Your task to perform on an android device: Search for logitech g pro on amazon, select the first entry, and add it to the cart. Image 0: 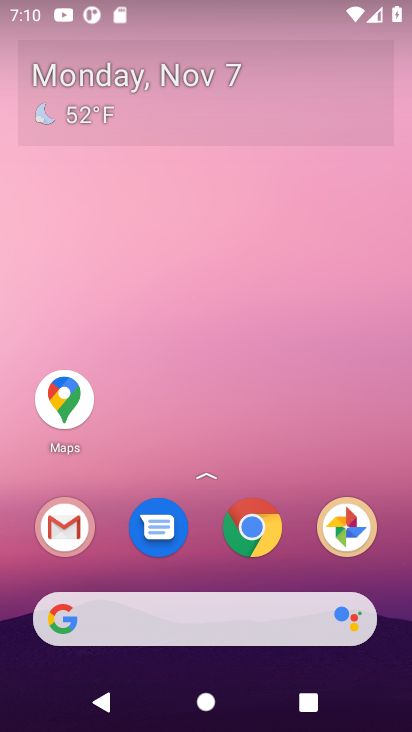
Step 0: click (259, 526)
Your task to perform on an android device: Search for logitech g pro on amazon, select the first entry, and add it to the cart. Image 1: 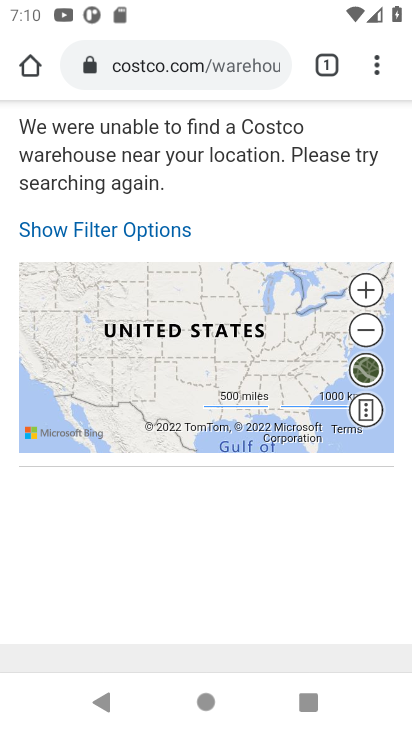
Step 1: click (183, 71)
Your task to perform on an android device: Search for logitech g pro on amazon, select the first entry, and add it to the cart. Image 2: 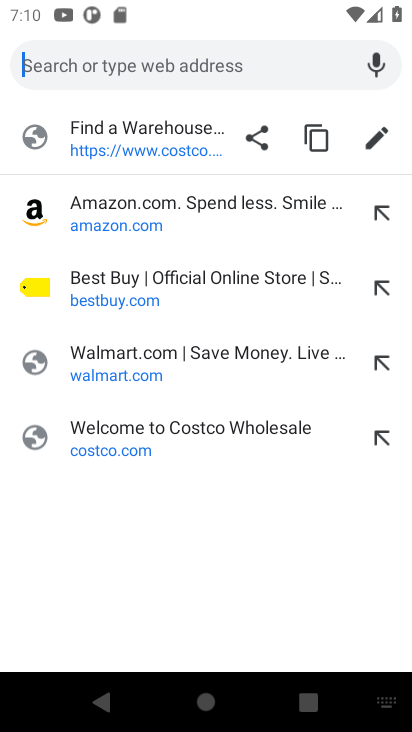
Step 2: type "amazon"
Your task to perform on an android device: Search for logitech g pro on amazon, select the first entry, and add it to the cart. Image 3: 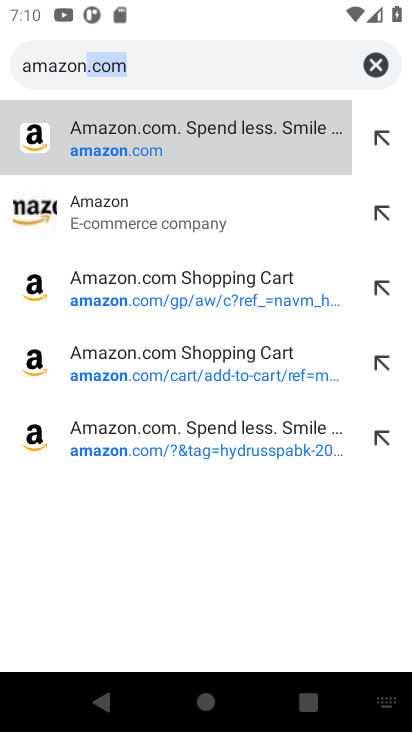
Step 3: type "["
Your task to perform on an android device: Search for logitech g pro on amazon, select the first entry, and add it to the cart. Image 4: 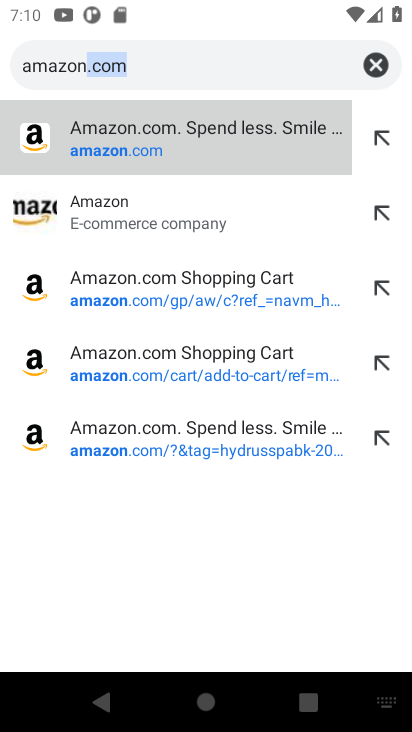
Step 4: click (231, 149)
Your task to perform on an android device: Search for logitech g pro on amazon, select the first entry, and add it to the cart. Image 5: 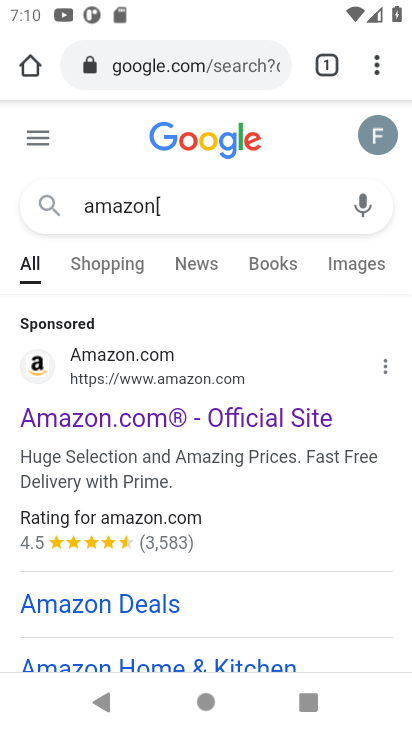
Step 5: click (126, 429)
Your task to perform on an android device: Search for logitech g pro on amazon, select the first entry, and add it to the cart. Image 6: 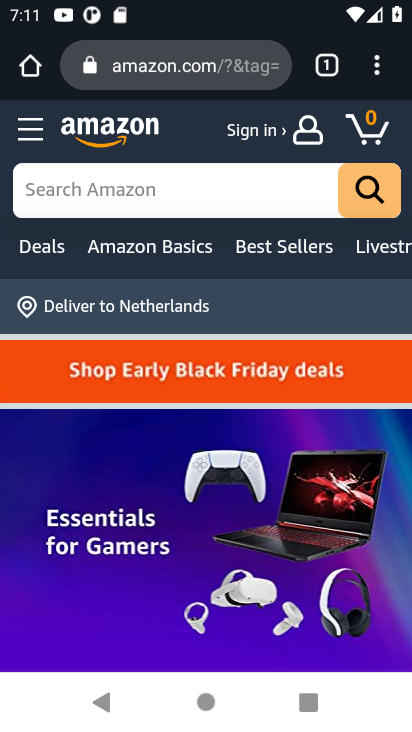
Step 6: click (175, 190)
Your task to perform on an android device: Search for logitech g pro on amazon, select the first entry, and add it to the cart. Image 7: 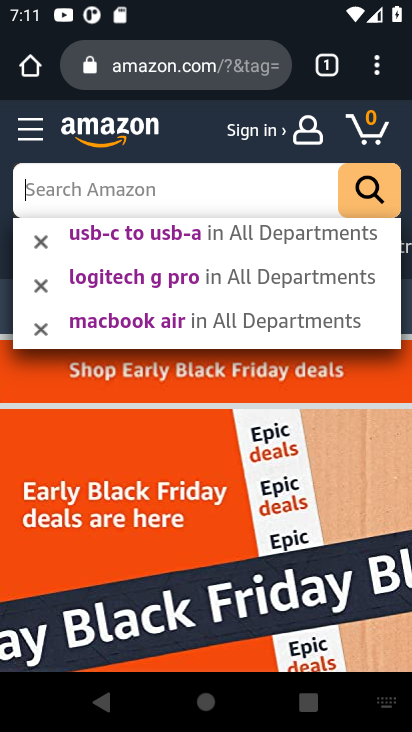
Step 7: type "logitech g pro"
Your task to perform on an android device: Search for logitech g pro on amazon, select the first entry, and add it to the cart. Image 8: 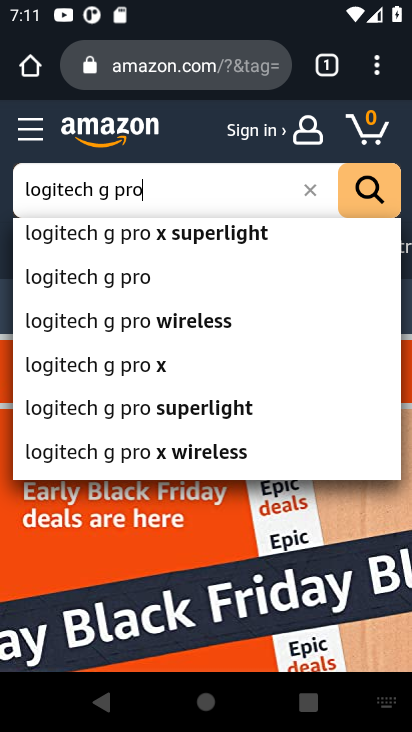
Step 8: press enter
Your task to perform on an android device: Search for logitech g pro on amazon, select the first entry, and add it to the cart. Image 9: 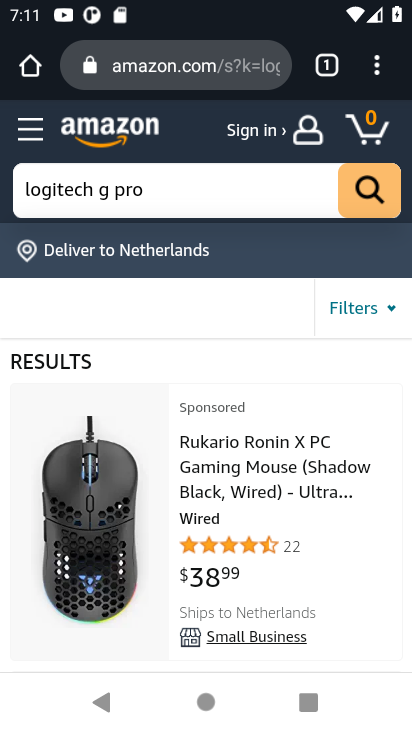
Step 9: drag from (243, 550) to (157, 186)
Your task to perform on an android device: Search for logitech g pro on amazon, select the first entry, and add it to the cart. Image 10: 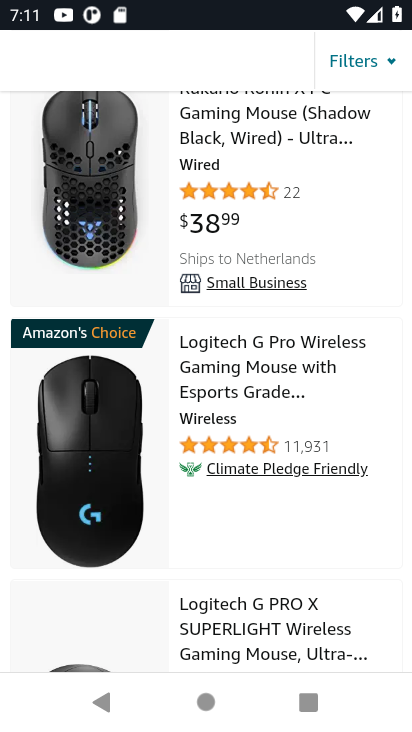
Step 10: click (98, 160)
Your task to perform on an android device: Search for logitech g pro on amazon, select the first entry, and add it to the cart. Image 11: 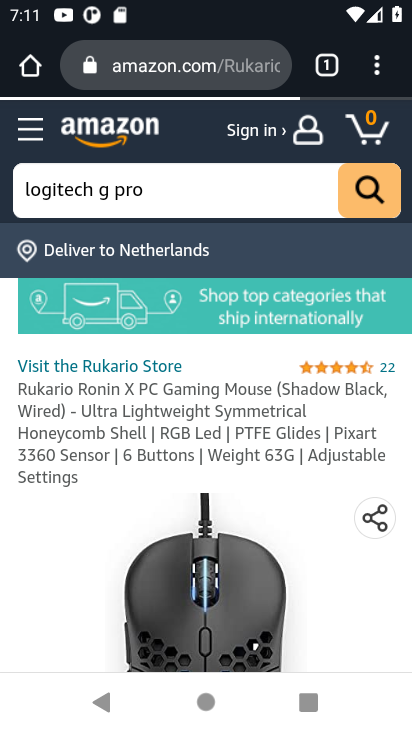
Step 11: drag from (285, 610) to (212, 201)
Your task to perform on an android device: Search for logitech g pro on amazon, select the first entry, and add it to the cart. Image 12: 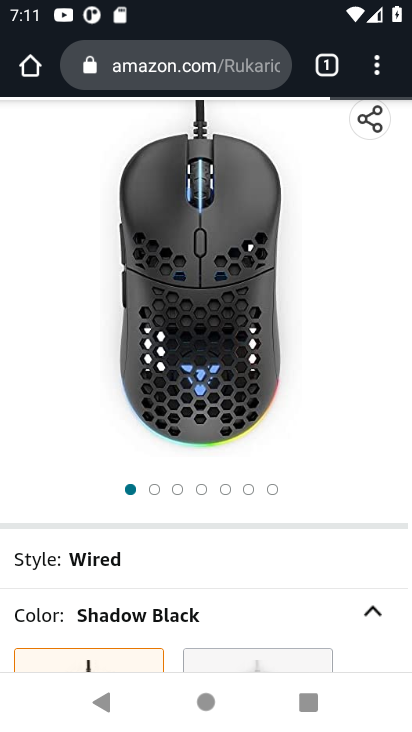
Step 12: drag from (180, 556) to (125, 201)
Your task to perform on an android device: Search for logitech g pro on amazon, select the first entry, and add it to the cart. Image 13: 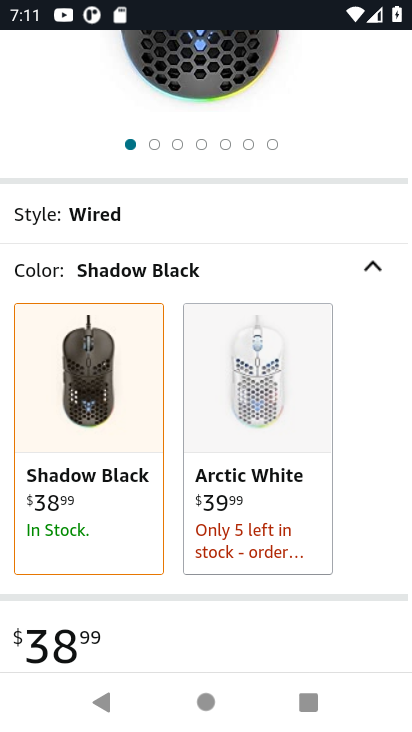
Step 13: drag from (176, 599) to (121, 127)
Your task to perform on an android device: Search for logitech g pro on amazon, select the first entry, and add it to the cart. Image 14: 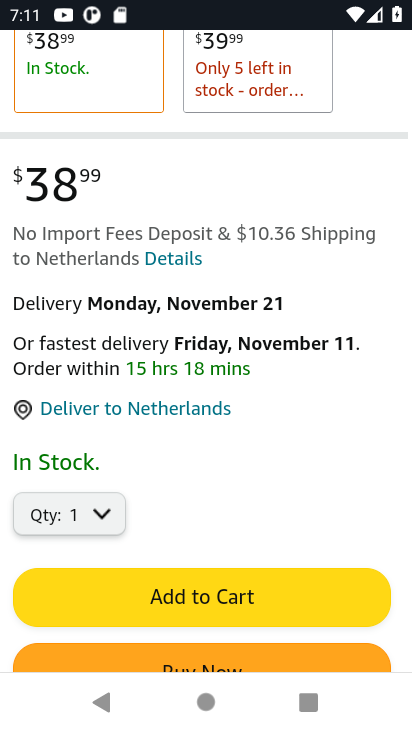
Step 14: click (268, 598)
Your task to perform on an android device: Search for logitech g pro on amazon, select the first entry, and add it to the cart. Image 15: 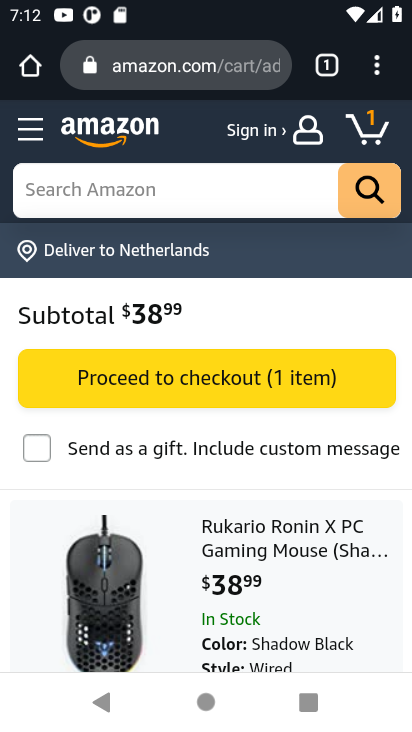
Step 15: task complete